Your task to perform on an android device: Open my contact list Image 0: 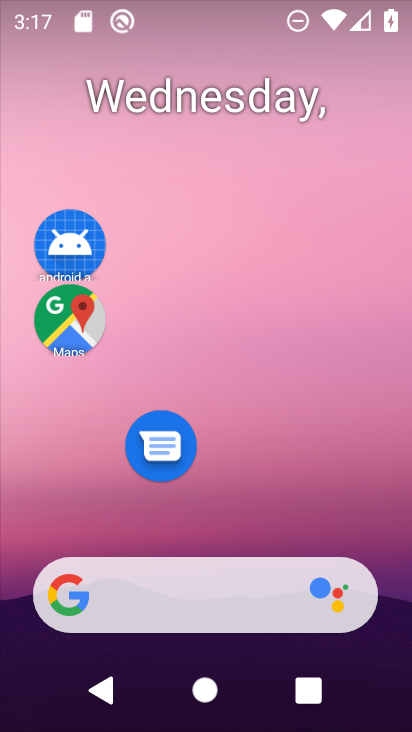
Step 0: drag from (272, 499) to (268, 6)
Your task to perform on an android device: Open my contact list Image 1: 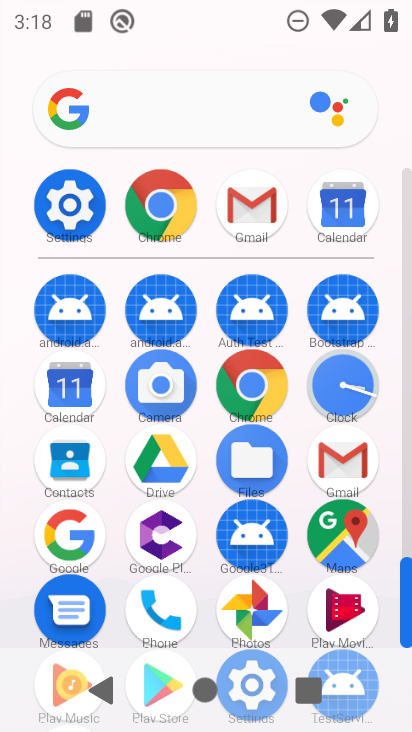
Step 1: click (78, 473)
Your task to perform on an android device: Open my contact list Image 2: 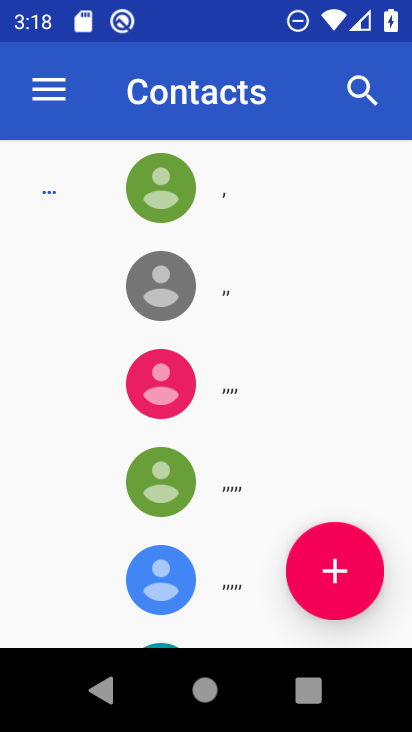
Step 2: task complete